Your task to perform on an android device: set the timer Image 0: 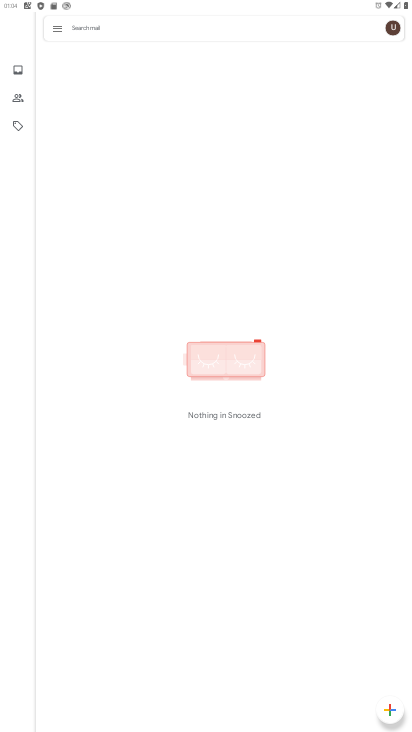
Step 0: press home button
Your task to perform on an android device: set the timer Image 1: 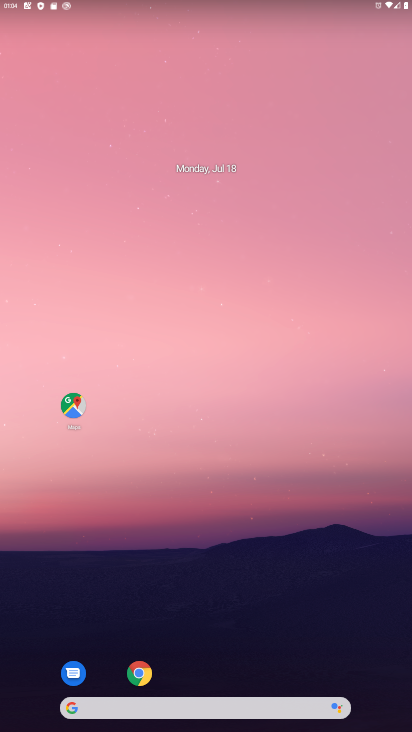
Step 1: drag from (282, 650) to (142, 87)
Your task to perform on an android device: set the timer Image 2: 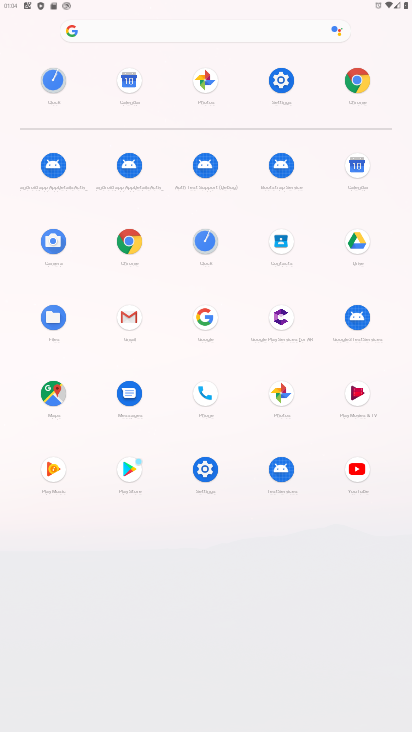
Step 2: click (211, 240)
Your task to perform on an android device: set the timer Image 3: 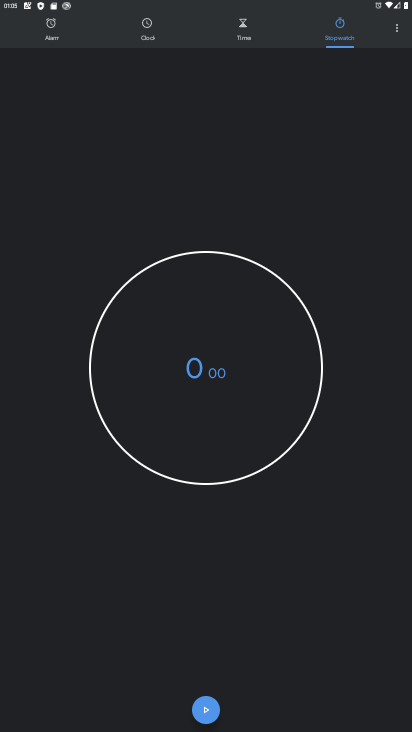
Step 3: task complete